Your task to perform on an android device: Go to Wikipedia Image 0: 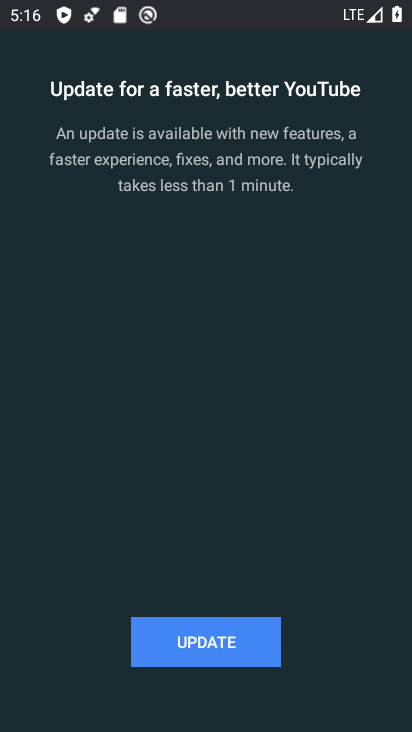
Step 0: press home button
Your task to perform on an android device: Go to Wikipedia Image 1: 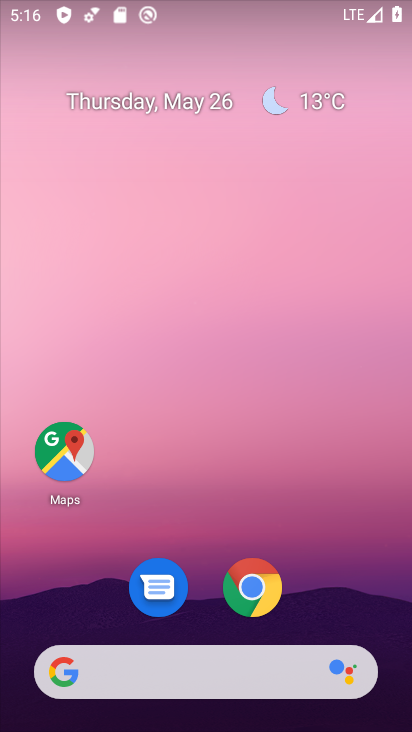
Step 1: click (250, 591)
Your task to perform on an android device: Go to Wikipedia Image 2: 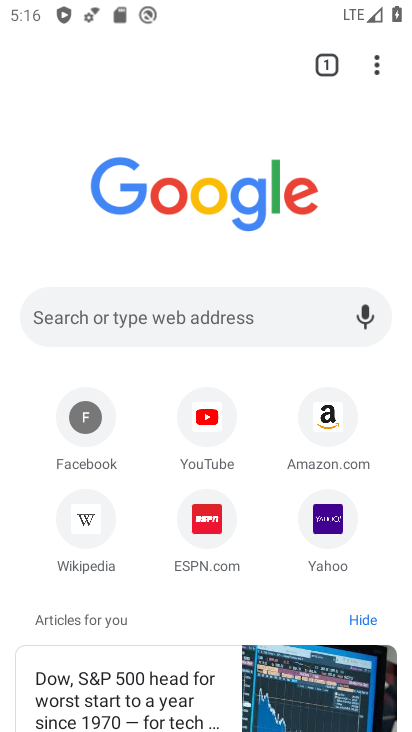
Step 2: click (82, 515)
Your task to perform on an android device: Go to Wikipedia Image 3: 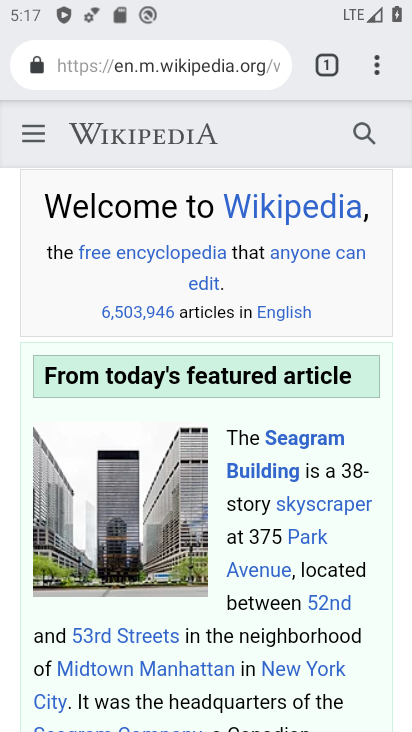
Step 3: task complete